Your task to perform on an android device: Toggle the flashlight Image 0: 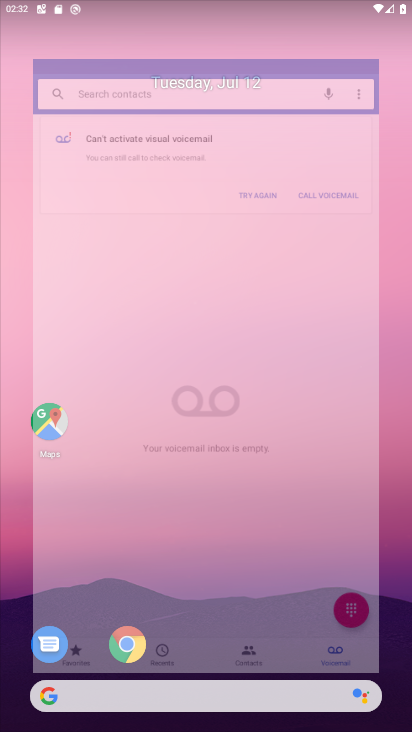
Step 0: drag from (202, 673) to (198, 167)
Your task to perform on an android device: Toggle the flashlight Image 1: 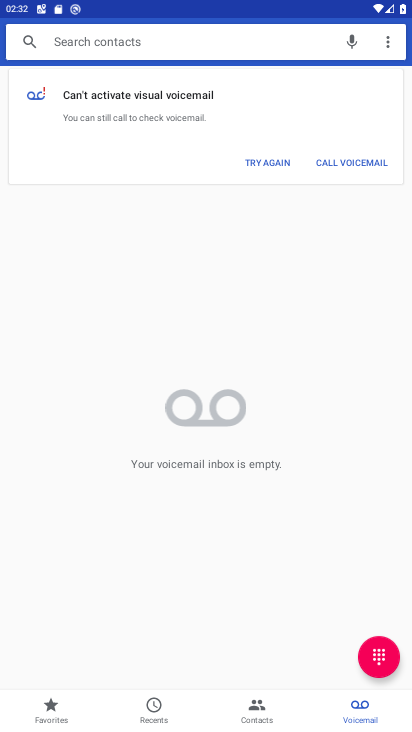
Step 1: press home button
Your task to perform on an android device: Toggle the flashlight Image 2: 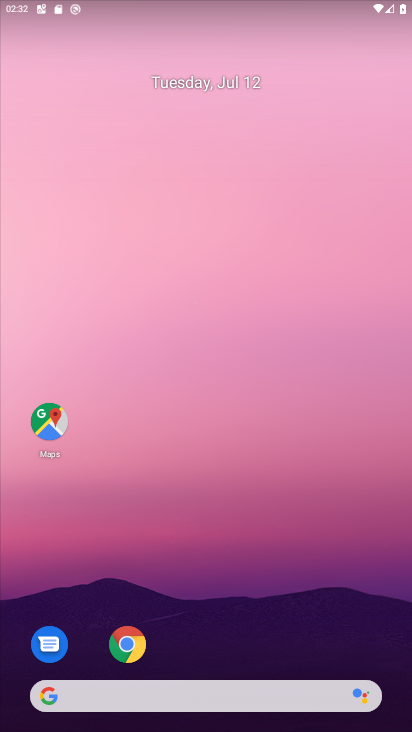
Step 2: drag from (208, 669) to (127, 180)
Your task to perform on an android device: Toggle the flashlight Image 3: 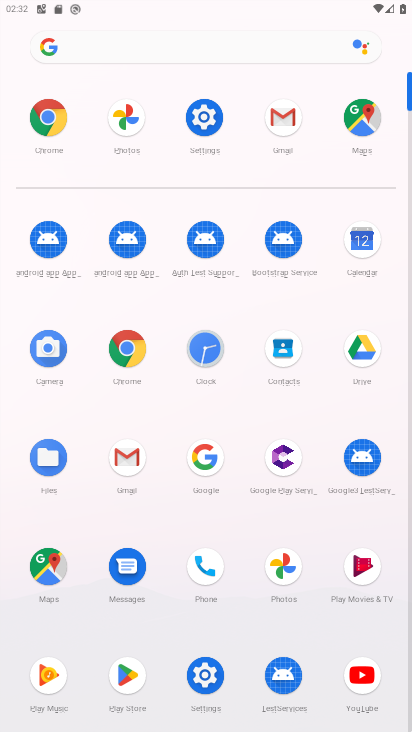
Step 3: click (208, 111)
Your task to perform on an android device: Toggle the flashlight Image 4: 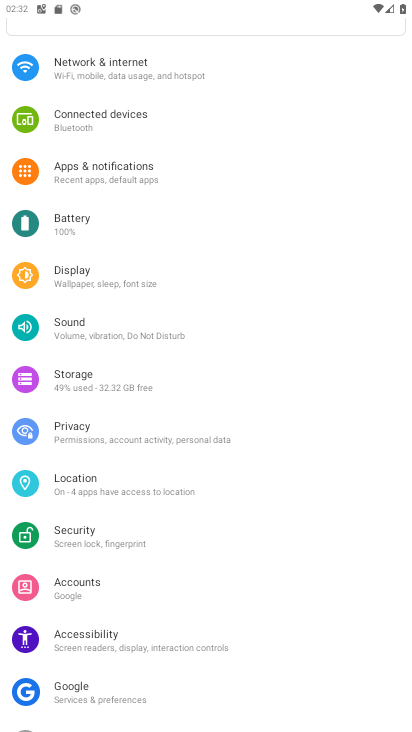
Step 4: task complete